Your task to perform on an android device: change the clock display to digital Image 0: 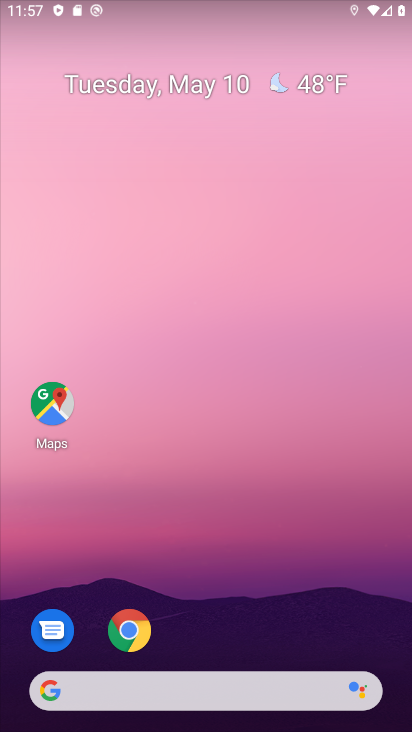
Step 0: drag from (214, 662) to (141, 83)
Your task to perform on an android device: change the clock display to digital Image 1: 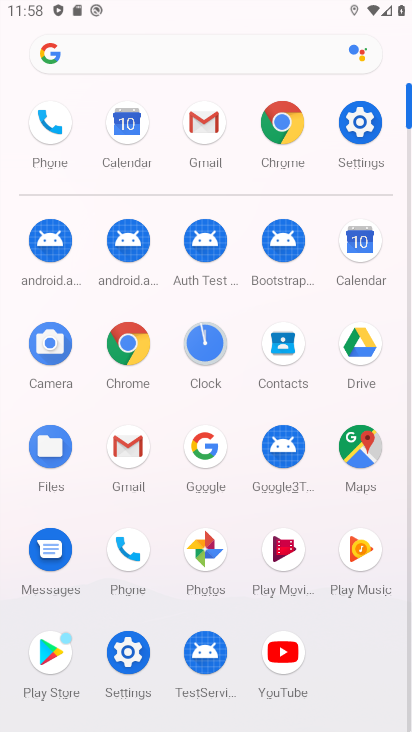
Step 1: click (194, 342)
Your task to perform on an android device: change the clock display to digital Image 2: 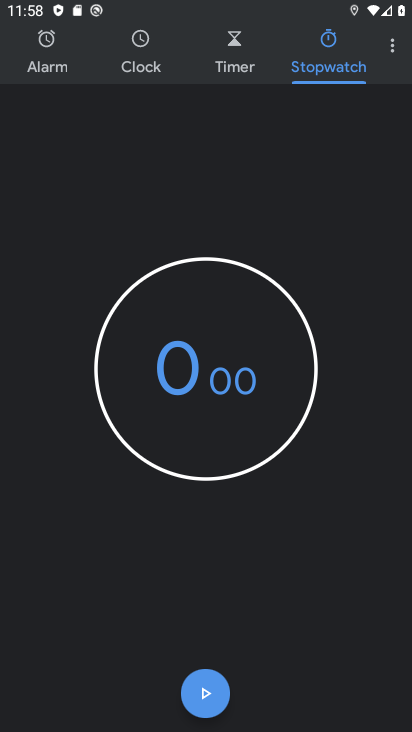
Step 2: click (397, 41)
Your task to perform on an android device: change the clock display to digital Image 3: 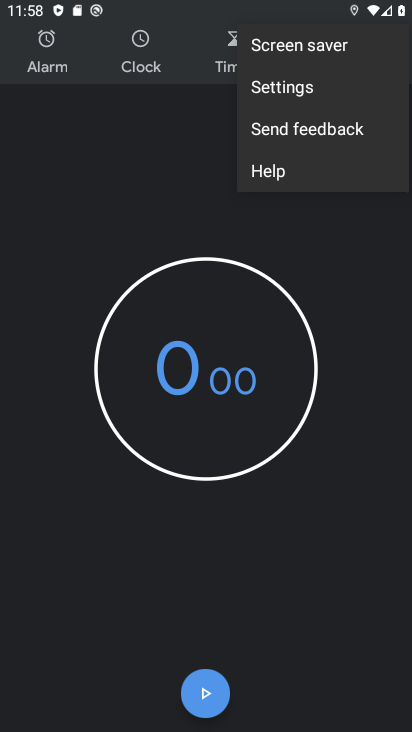
Step 3: click (272, 83)
Your task to perform on an android device: change the clock display to digital Image 4: 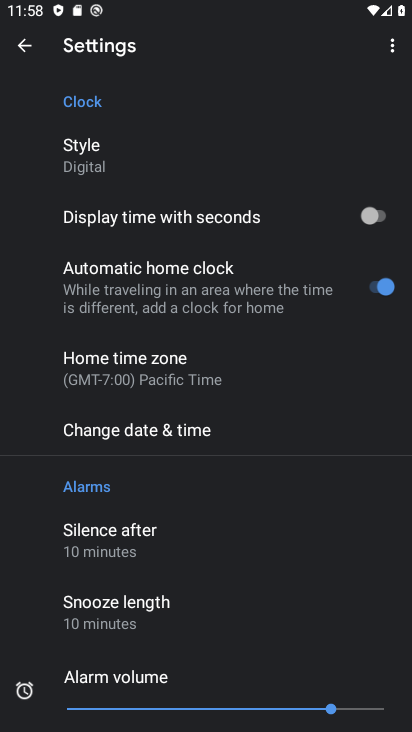
Step 4: click (79, 177)
Your task to perform on an android device: change the clock display to digital Image 5: 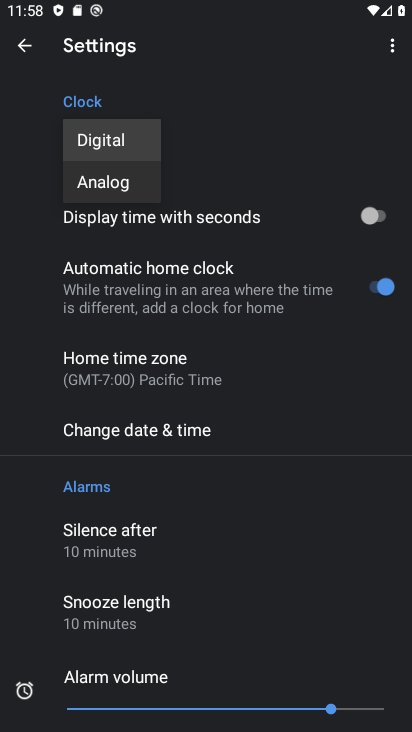
Step 5: click (138, 135)
Your task to perform on an android device: change the clock display to digital Image 6: 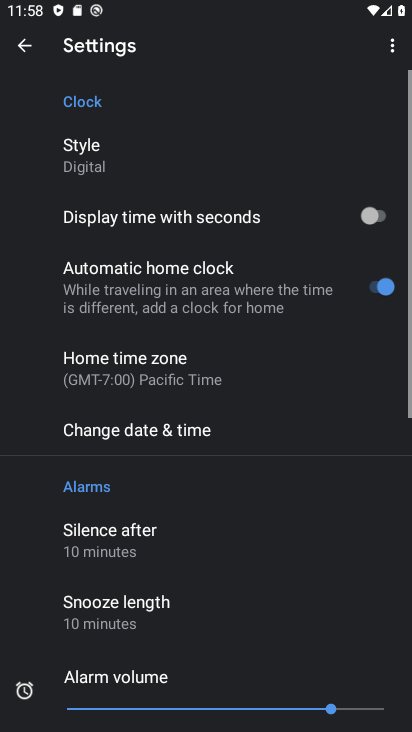
Step 6: task complete